Your task to perform on an android device: Install the ESPN app Image 0: 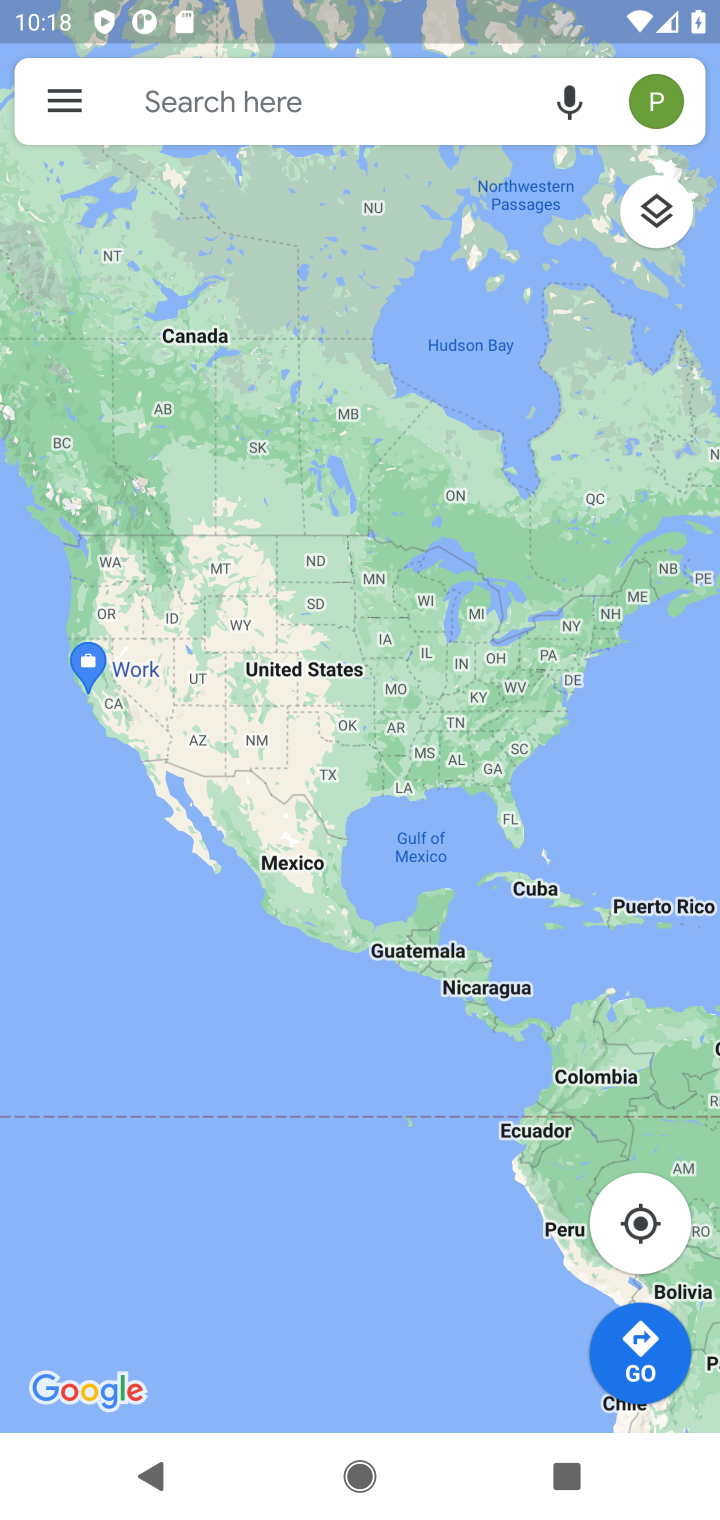
Step 0: press home button
Your task to perform on an android device: Install the ESPN app Image 1: 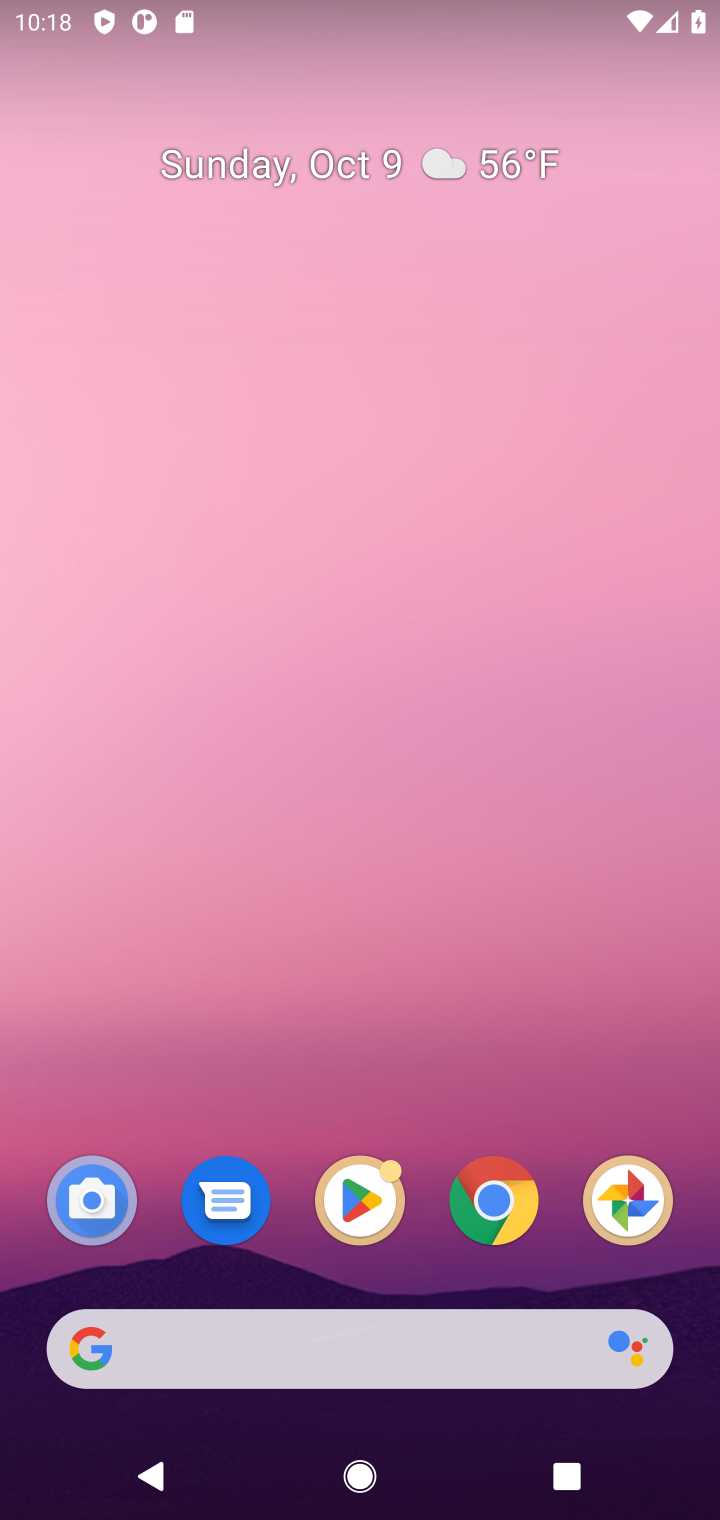
Step 1: click (384, 1204)
Your task to perform on an android device: Install the ESPN app Image 2: 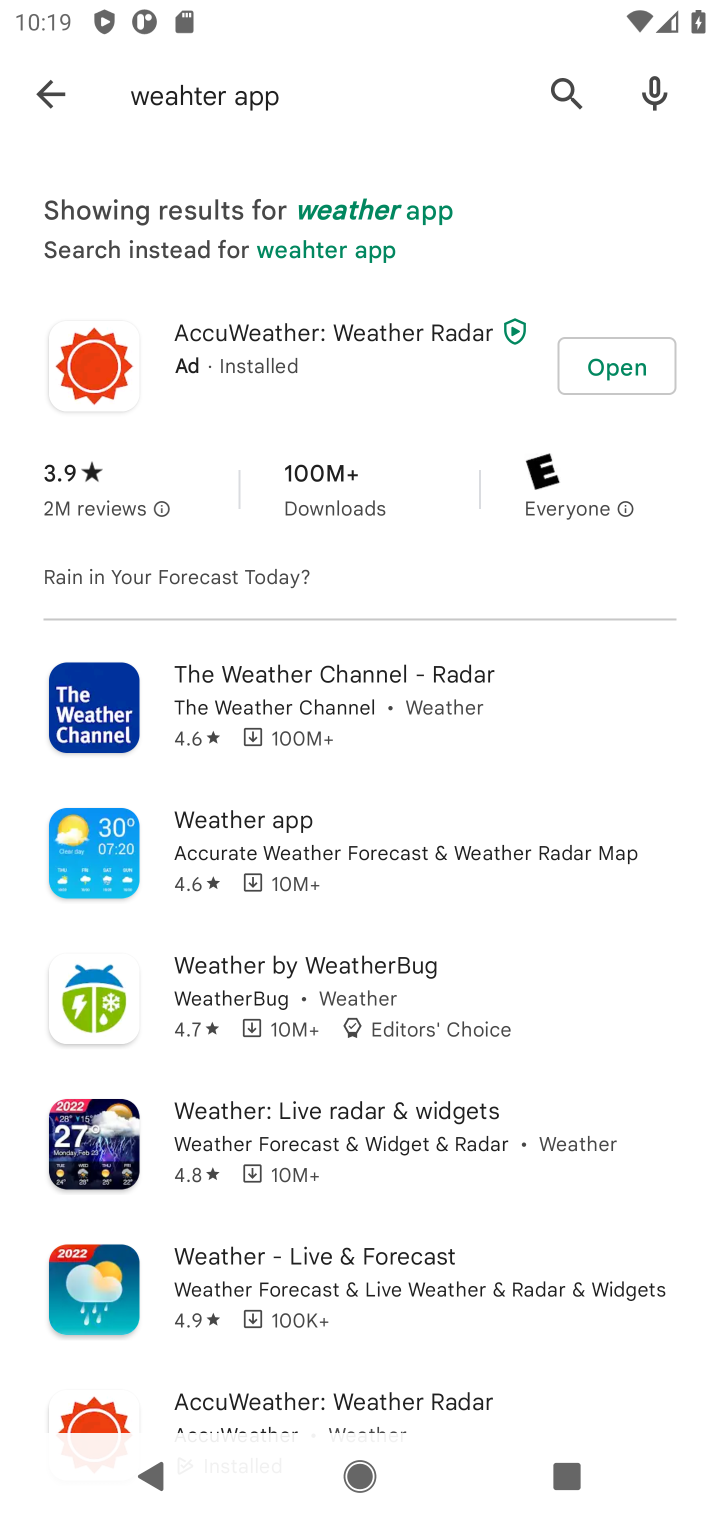
Step 2: click (571, 83)
Your task to perform on an android device: Install the ESPN app Image 3: 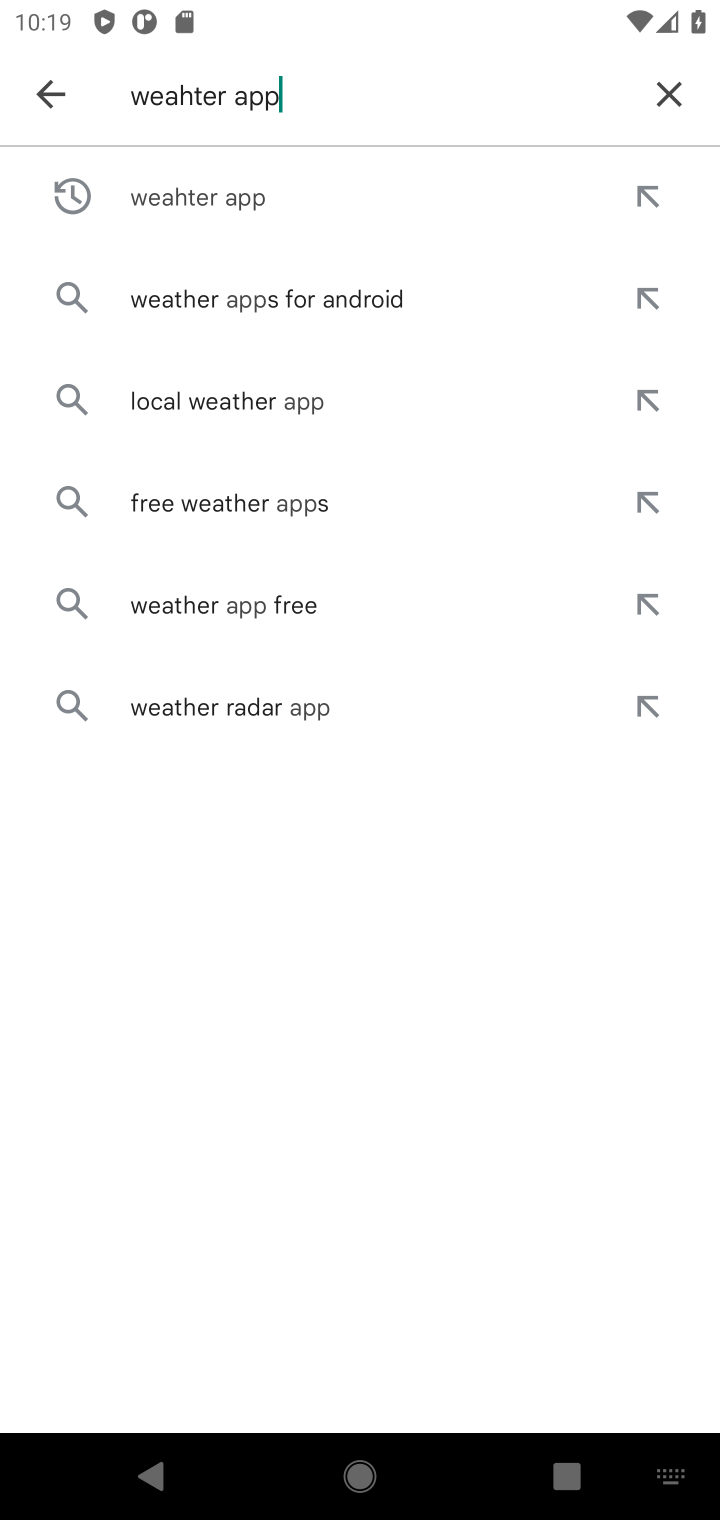
Step 3: click (680, 88)
Your task to perform on an android device: Install the ESPN app Image 4: 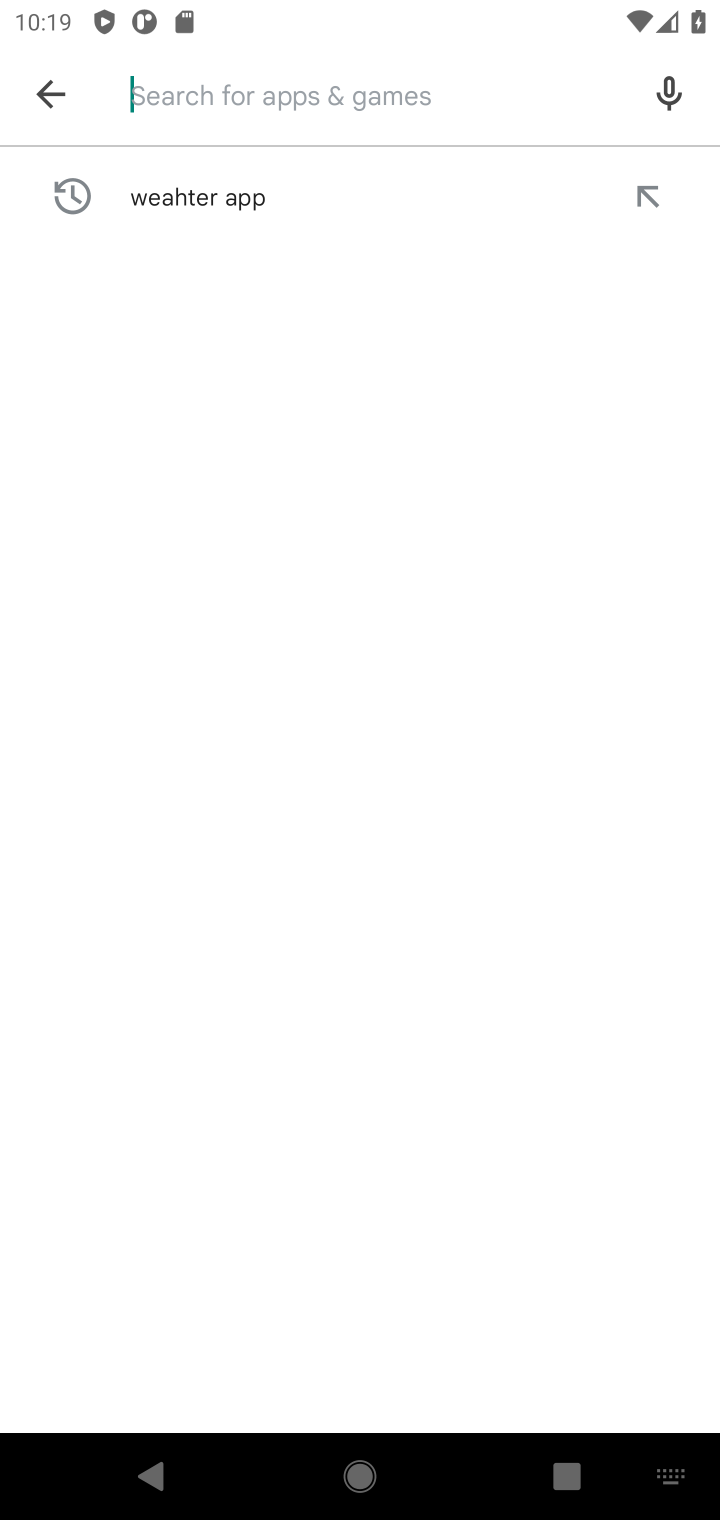
Step 4: type "espn "
Your task to perform on an android device: Install the ESPN app Image 5: 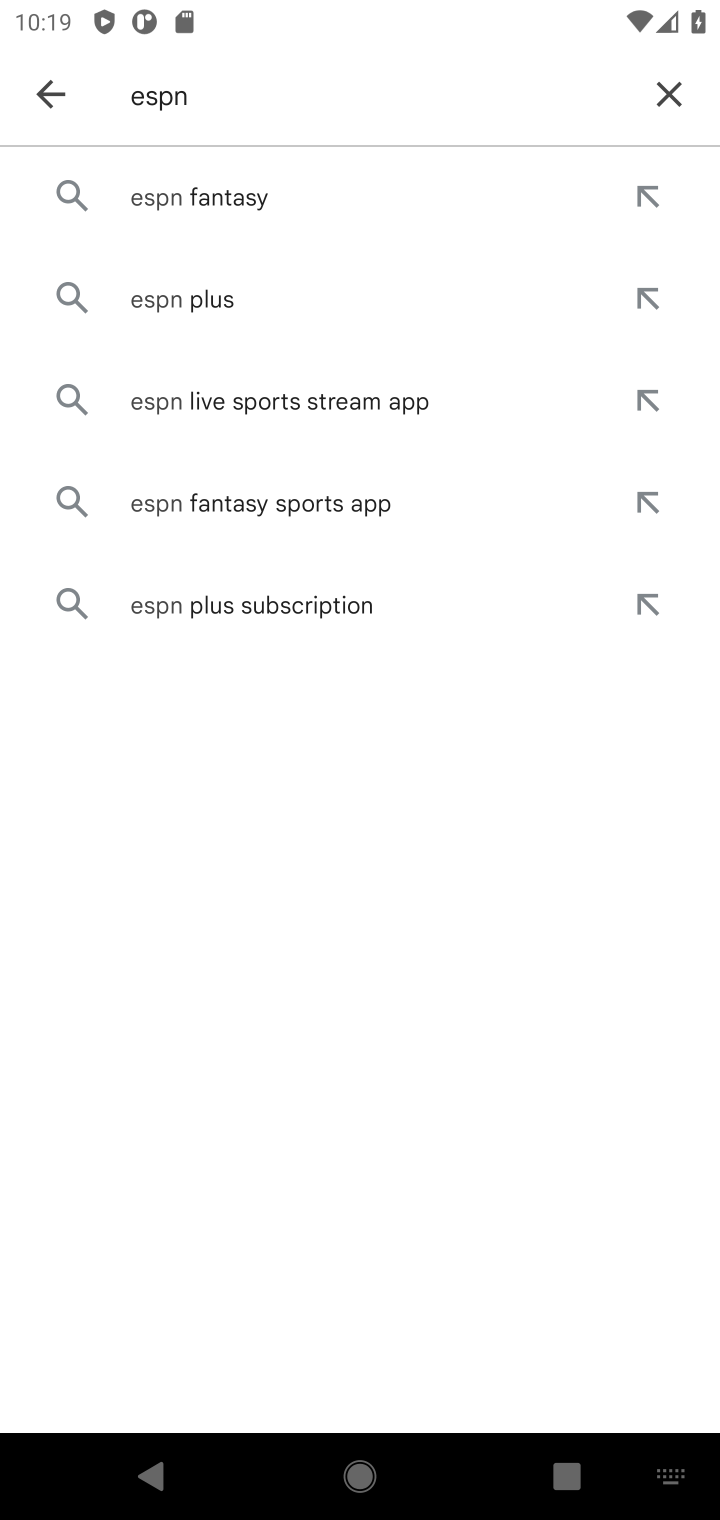
Step 5: press enter
Your task to perform on an android device: Install the ESPN app Image 6: 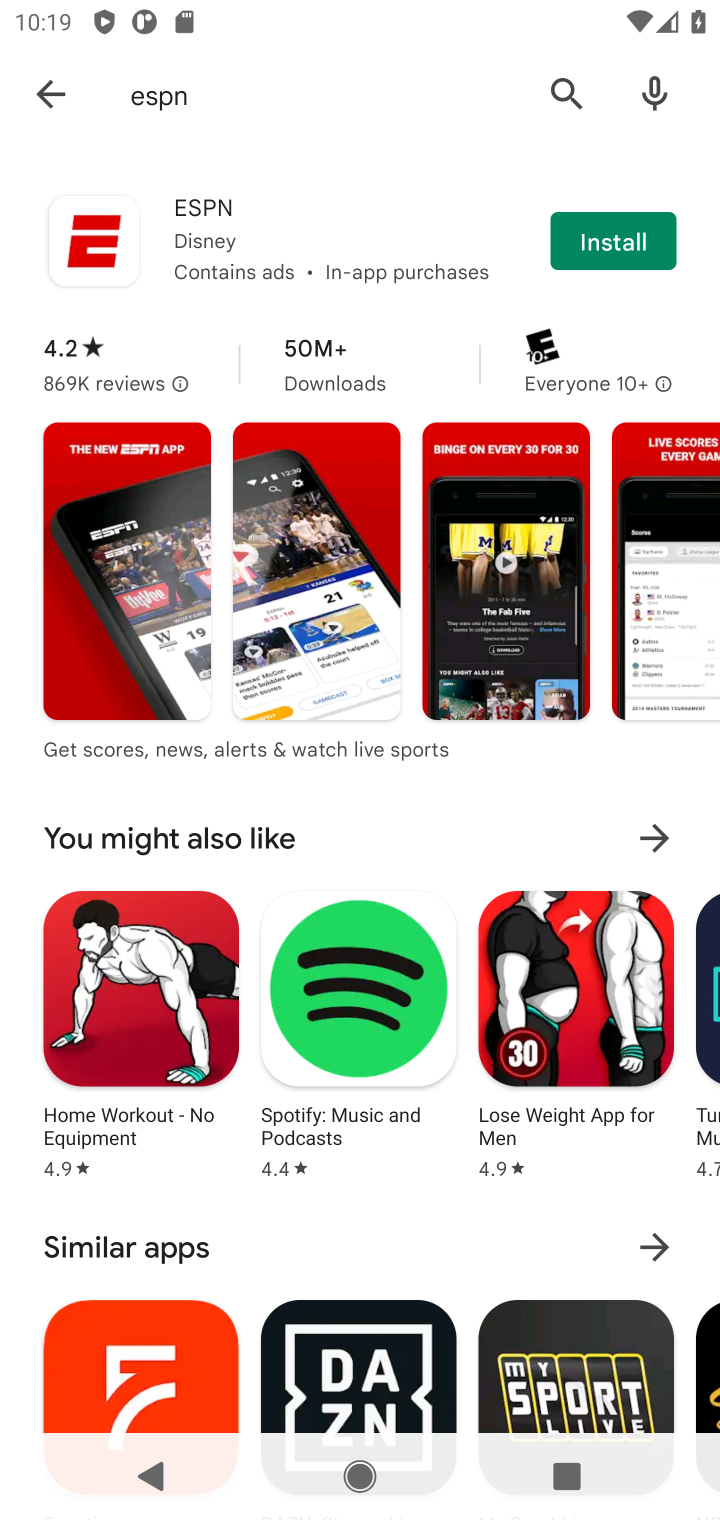
Step 6: click (637, 249)
Your task to perform on an android device: Install the ESPN app Image 7: 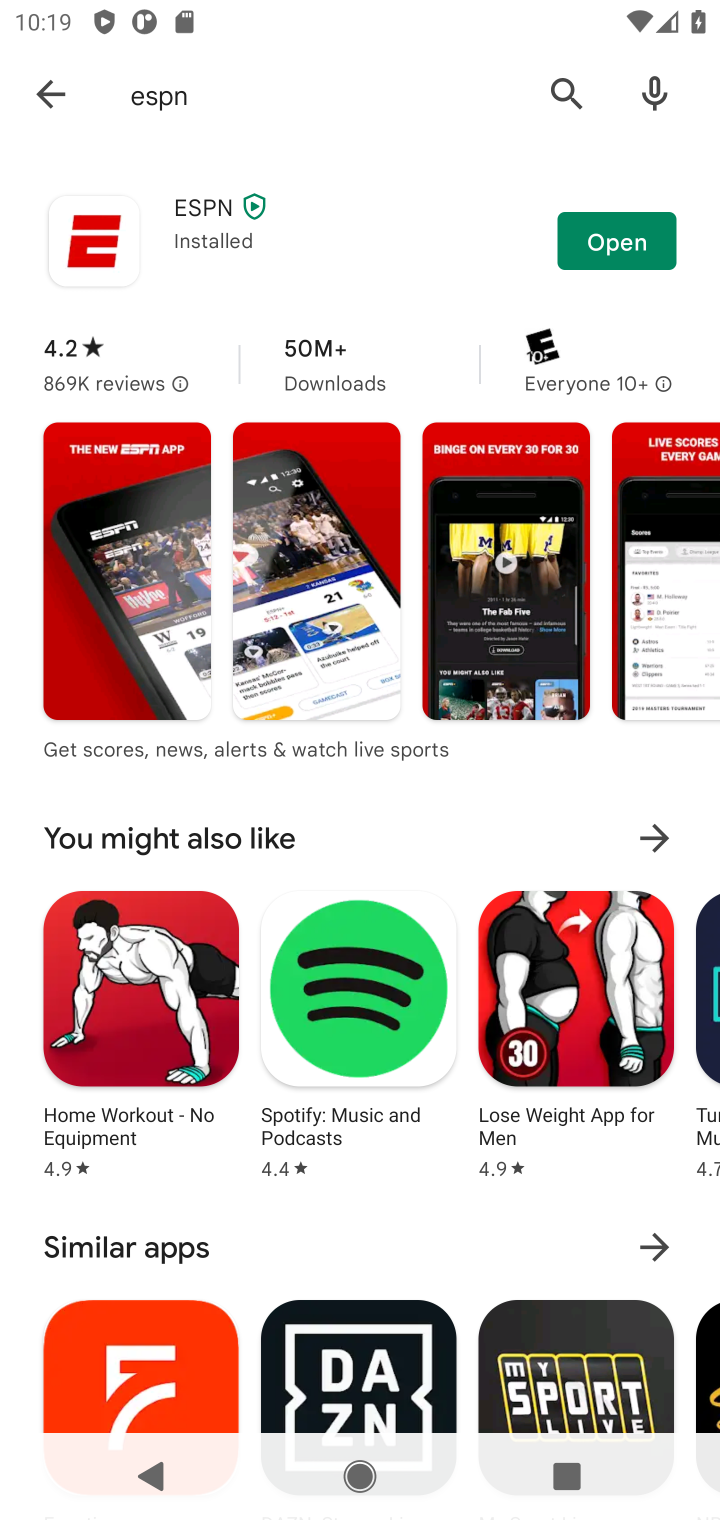
Step 7: task complete